Your task to perform on an android device: move an email to a new category in the gmail app Image 0: 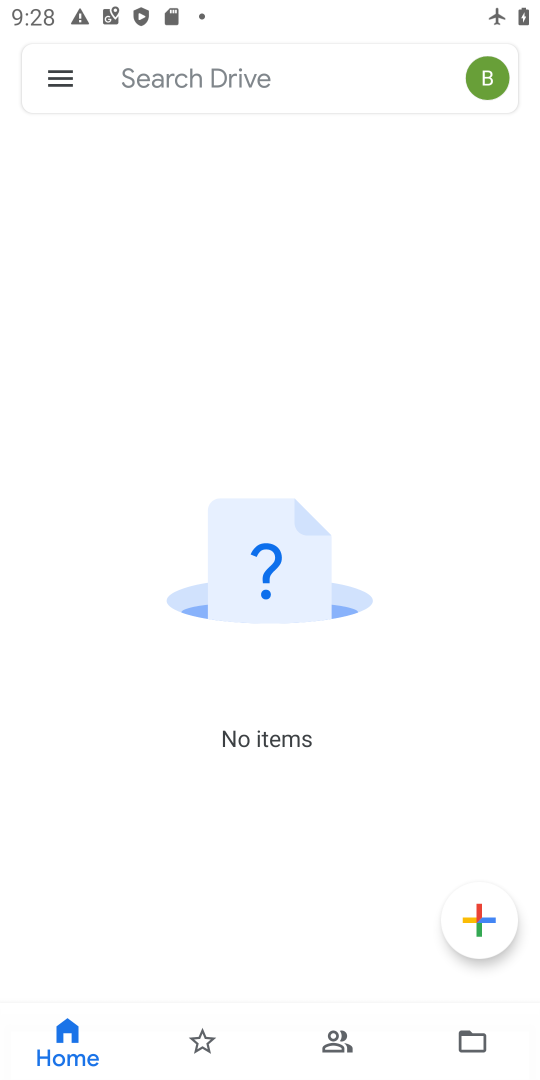
Step 0: press home button
Your task to perform on an android device: move an email to a new category in the gmail app Image 1: 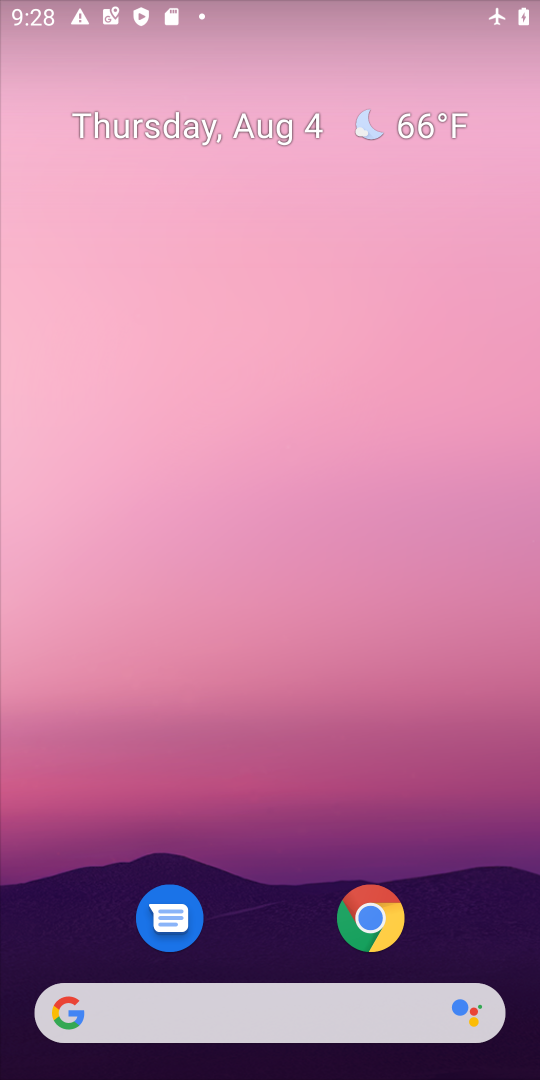
Step 1: press home button
Your task to perform on an android device: move an email to a new category in the gmail app Image 2: 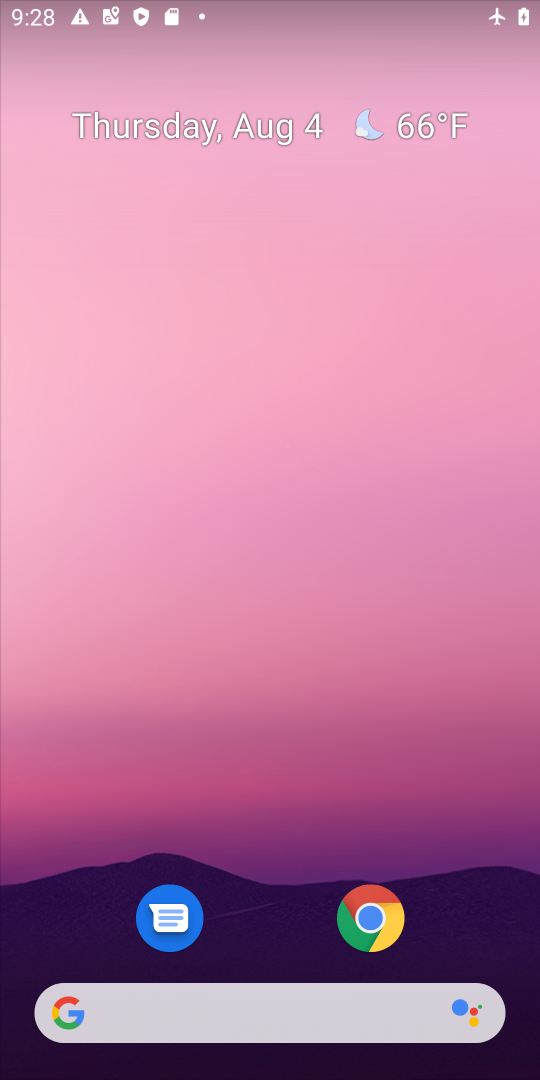
Step 2: drag from (273, 943) to (339, 2)
Your task to perform on an android device: move an email to a new category in the gmail app Image 3: 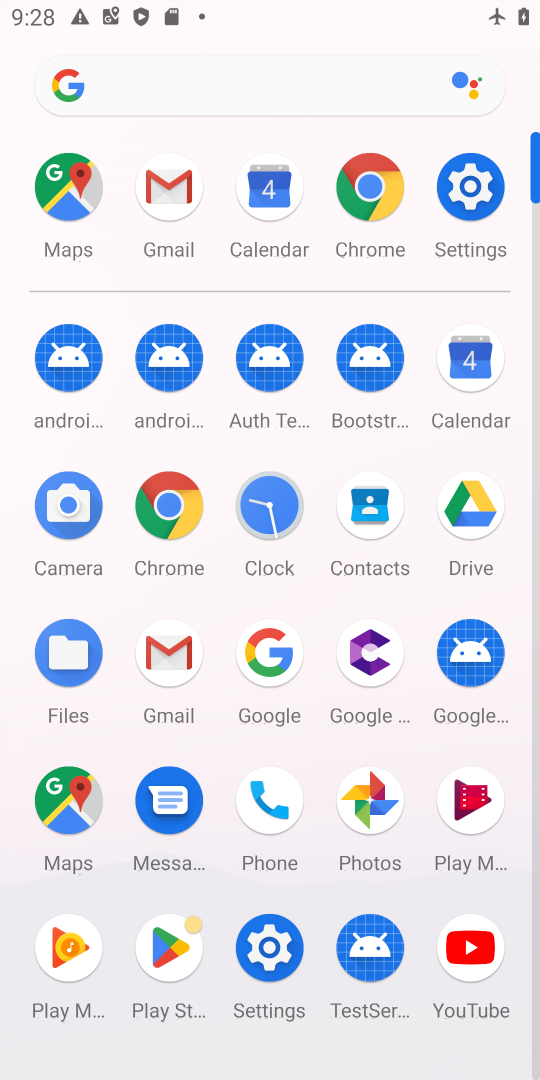
Step 3: click (172, 640)
Your task to perform on an android device: move an email to a new category in the gmail app Image 4: 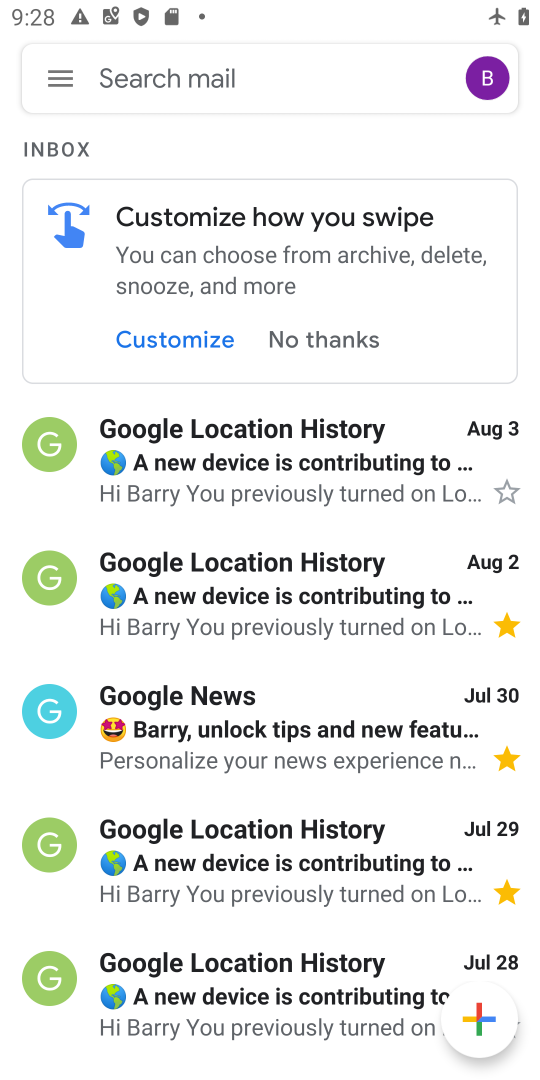
Step 4: click (58, 440)
Your task to perform on an android device: move an email to a new category in the gmail app Image 5: 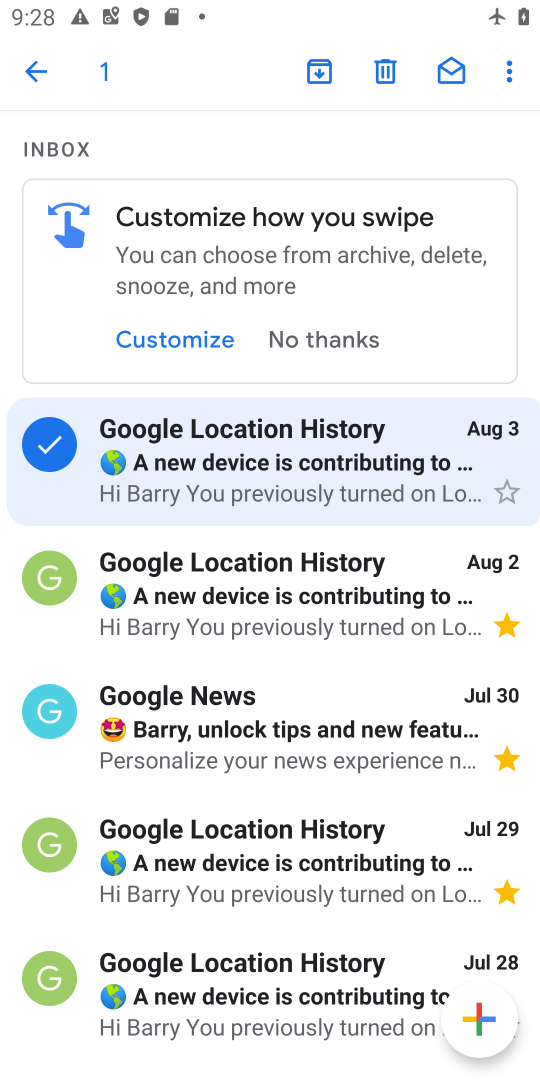
Step 5: click (505, 66)
Your task to perform on an android device: move an email to a new category in the gmail app Image 6: 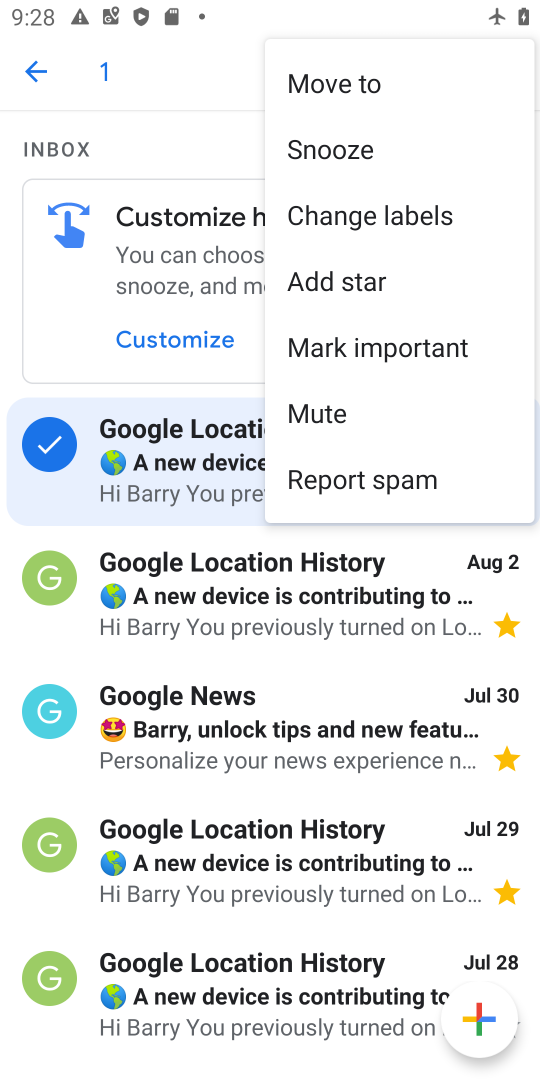
Step 6: click (385, 74)
Your task to perform on an android device: move an email to a new category in the gmail app Image 7: 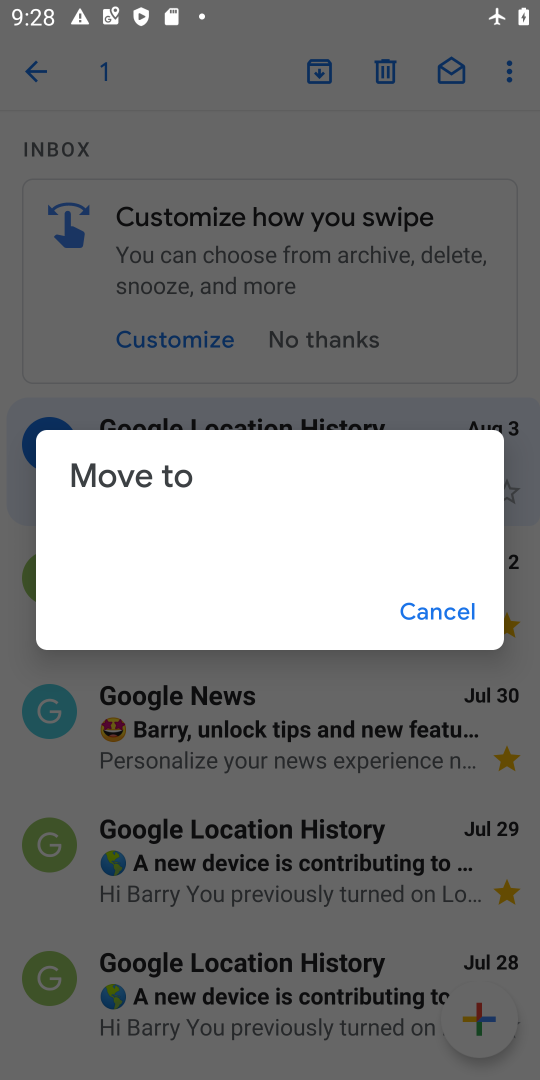
Step 7: task complete